Your task to perform on an android device: open a new tab in the chrome app Image 0: 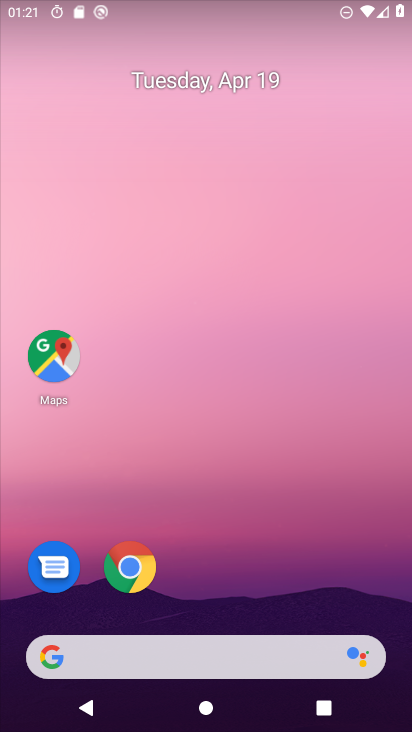
Step 0: click (135, 571)
Your task to perform on an android device: open a new tab in the chrome app Image 1: 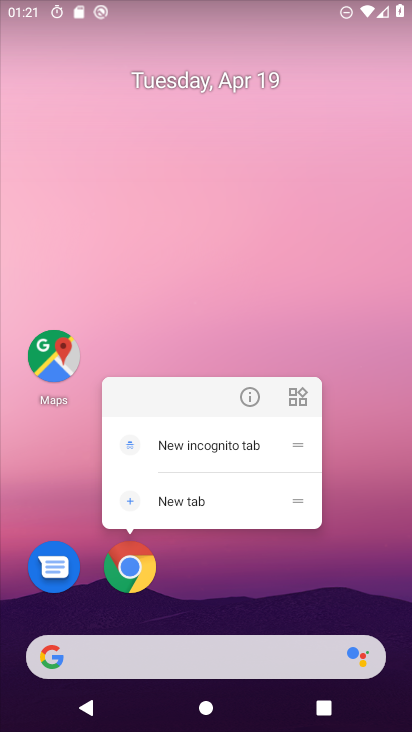
Step 1: click (189, 596)
Your task to perform on an android device: open a new tab in the chrome app Image 2: 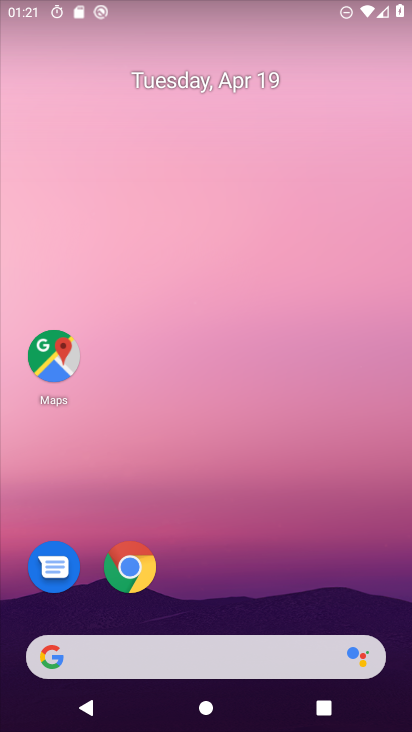
Step 2: drag from (274, 565) to (248, 33)
Your task to perform on an android device: open a new tab in the chrome app Image 3: 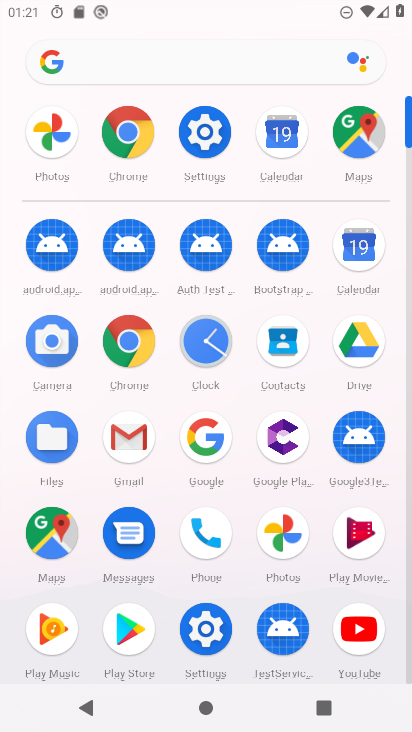
Step 3: click (139, 339)
Your task to perform on an android device: open a new tab in the chrome app Image 4: 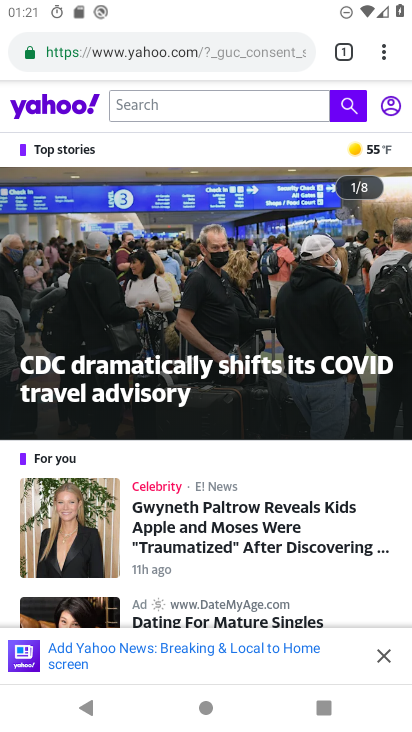
Step 4: task complete